Your task to perform on an android device: Clear all items from cart on walmart.com. Image 0: 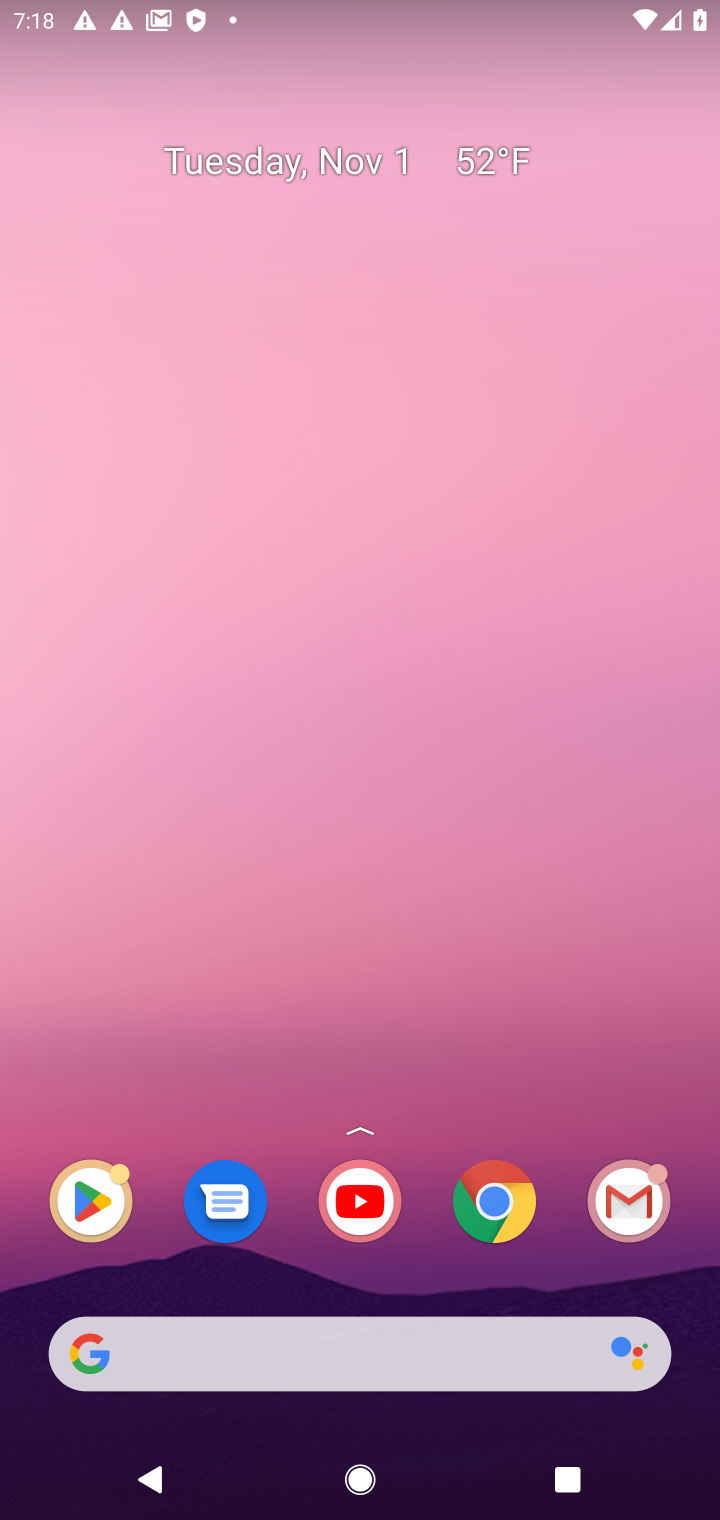
Step 0: click (218, 1334)
Your task to perform on an android device: Clear all items from cart on walmart.com. Image 1: 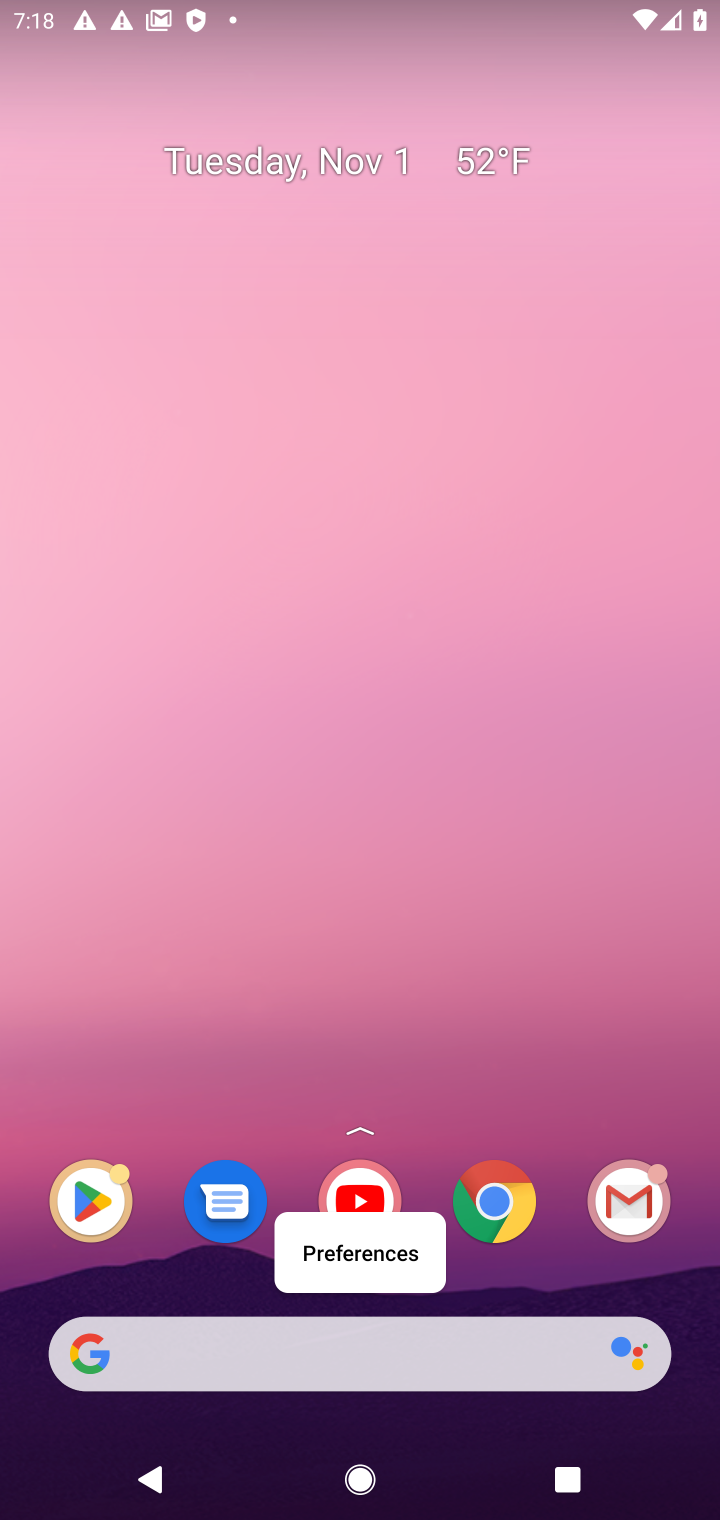
Step 1: click (503, 1204)
Your task to perform on an android device: Clear all items from cart on walmart.com. Image 2: 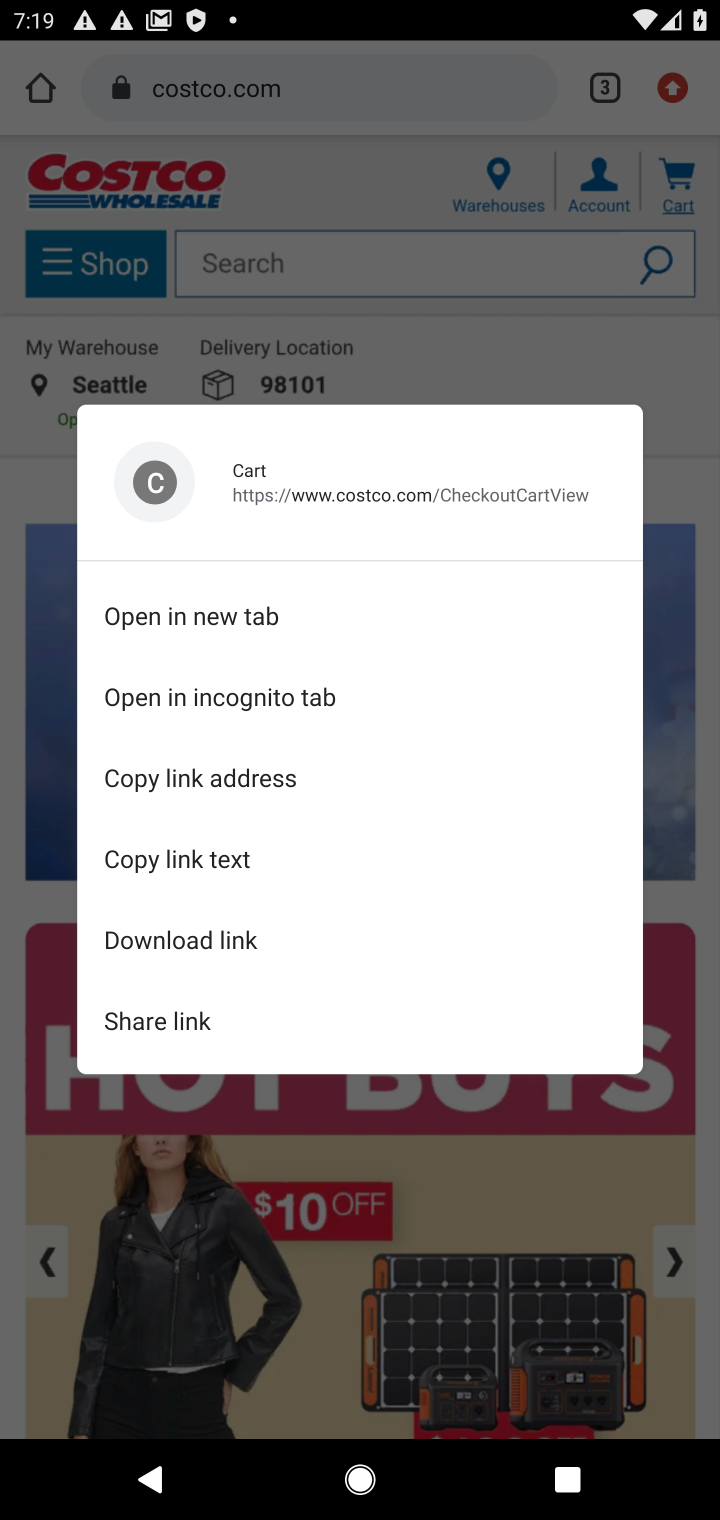
Step 2: click (370, 339)
Your task to perform on an android device: Clear all items from cart on walmart.com. Image 3: 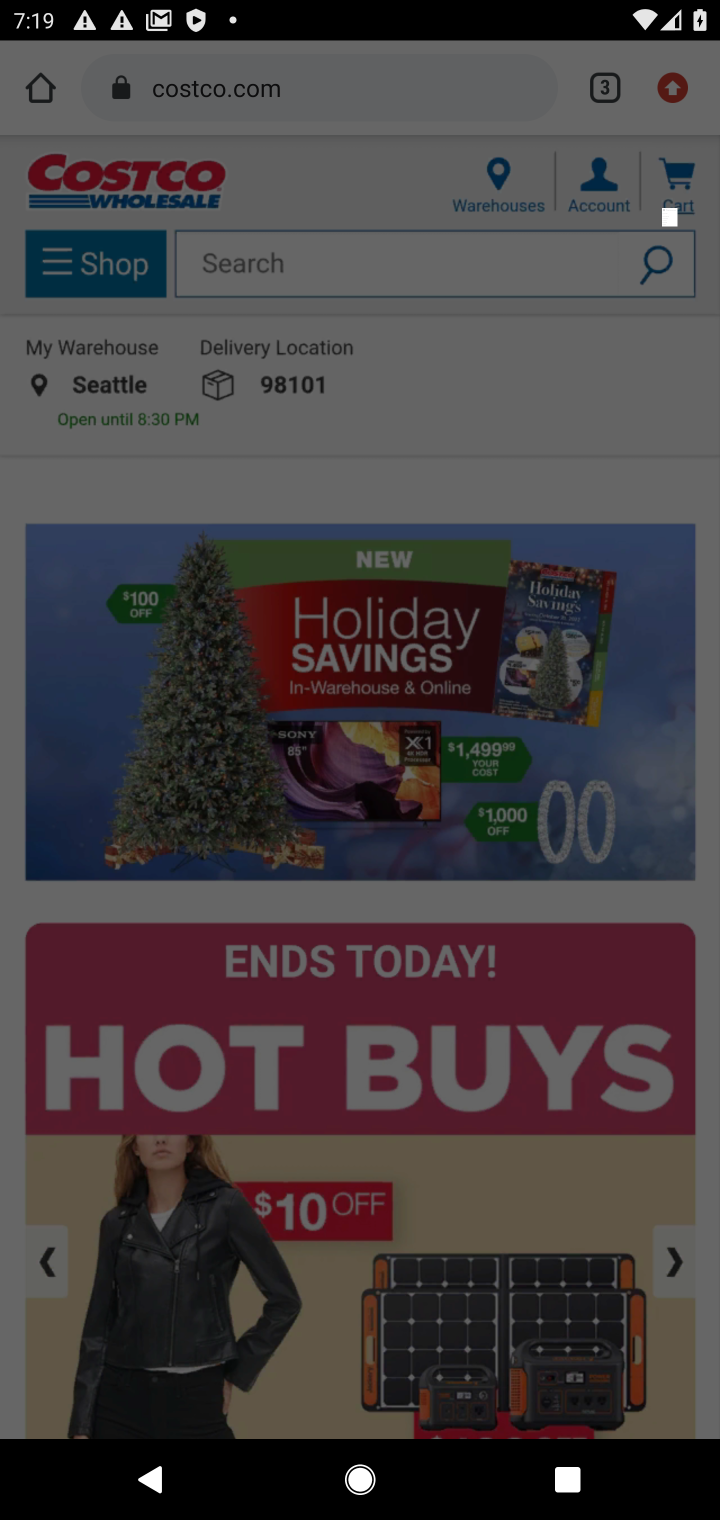
Step 3: click (303, 107)
Your task to perform on an android device: Clear all items from cart on walmart.com. Image 4: 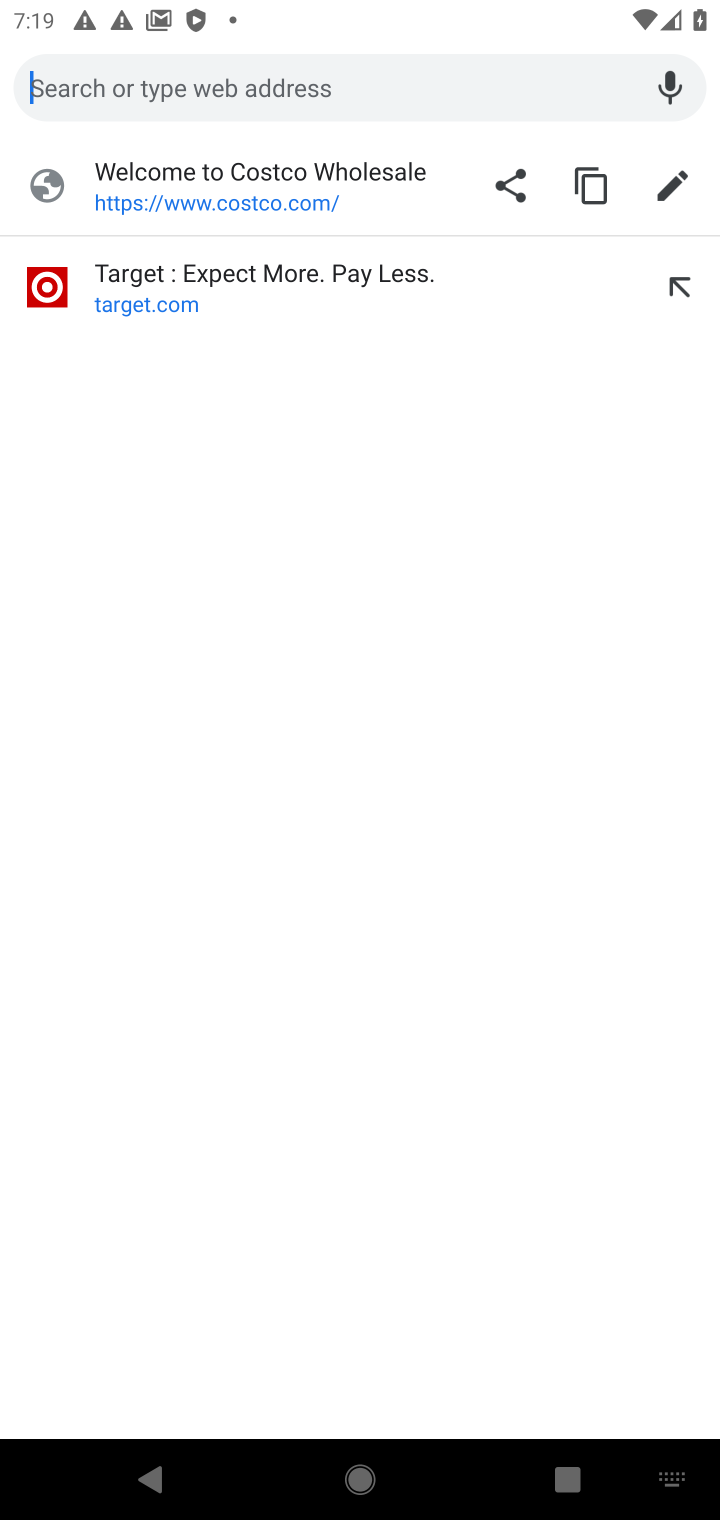
Step 4: click (206, 87)
Your task to perform on an android device: Clear all items from cart on walmart.com. Image 5: 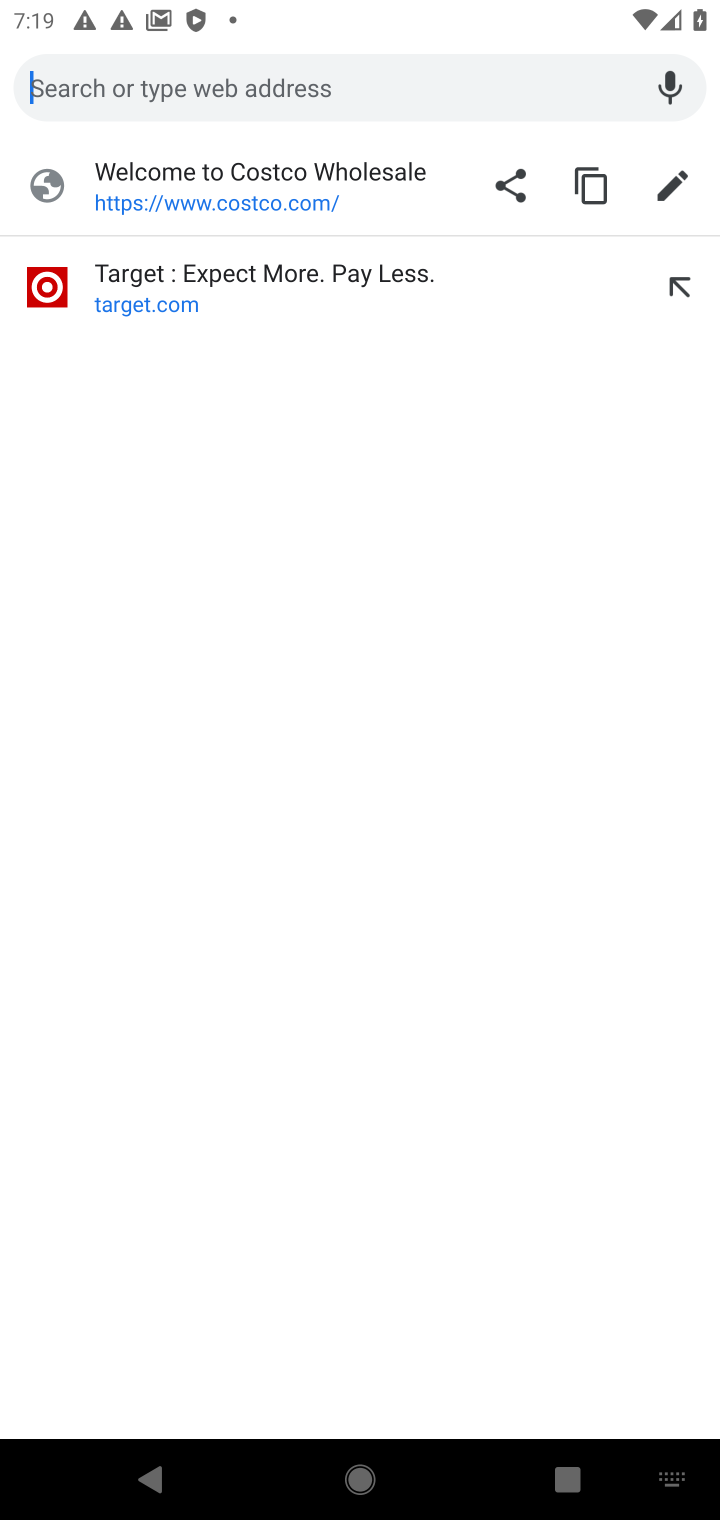
Step 5: type "walmart.com"
Your task to perform on an android device: Clear all items from cart on walmart.com. Image 6: 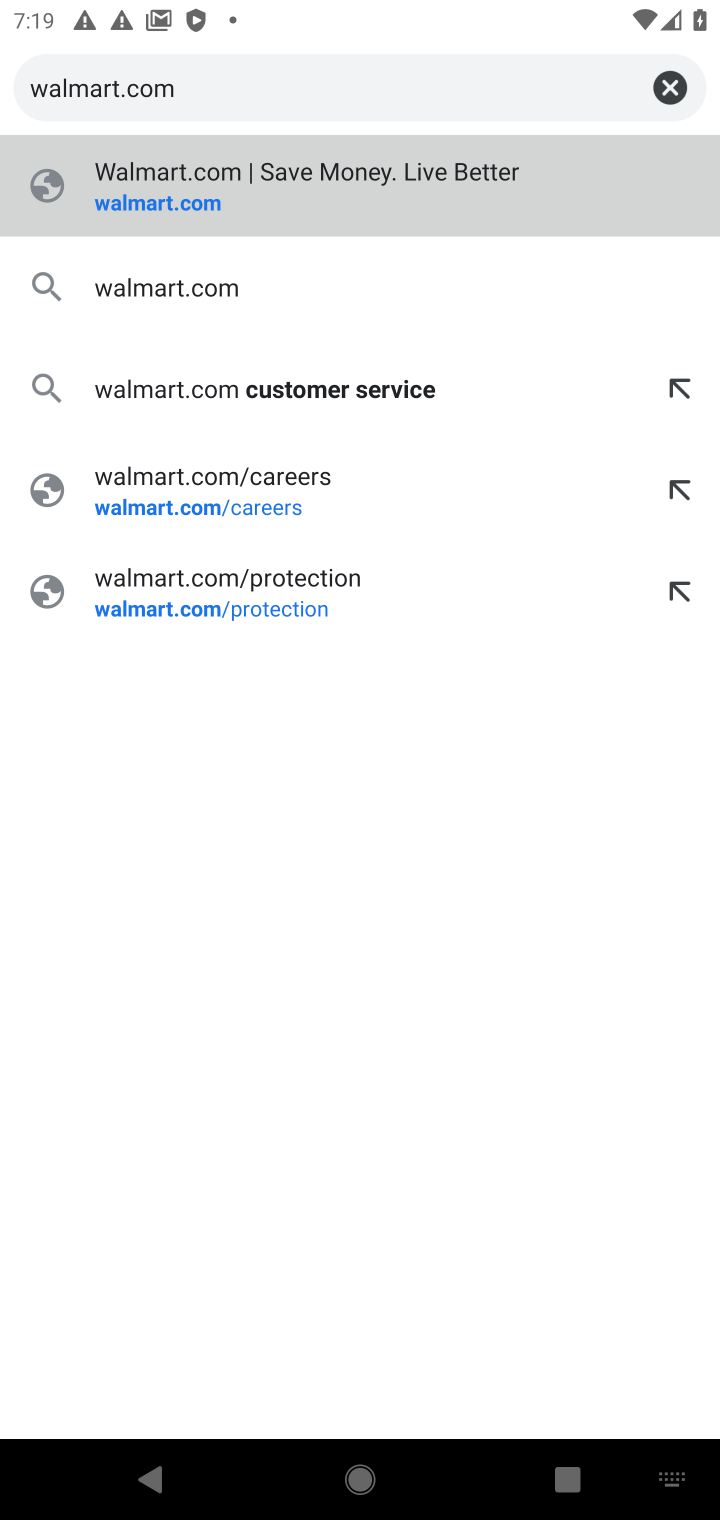
Step 6: type ""
Your task to perform on an android device: Clear all items from cart on walmart.com. Image 7: 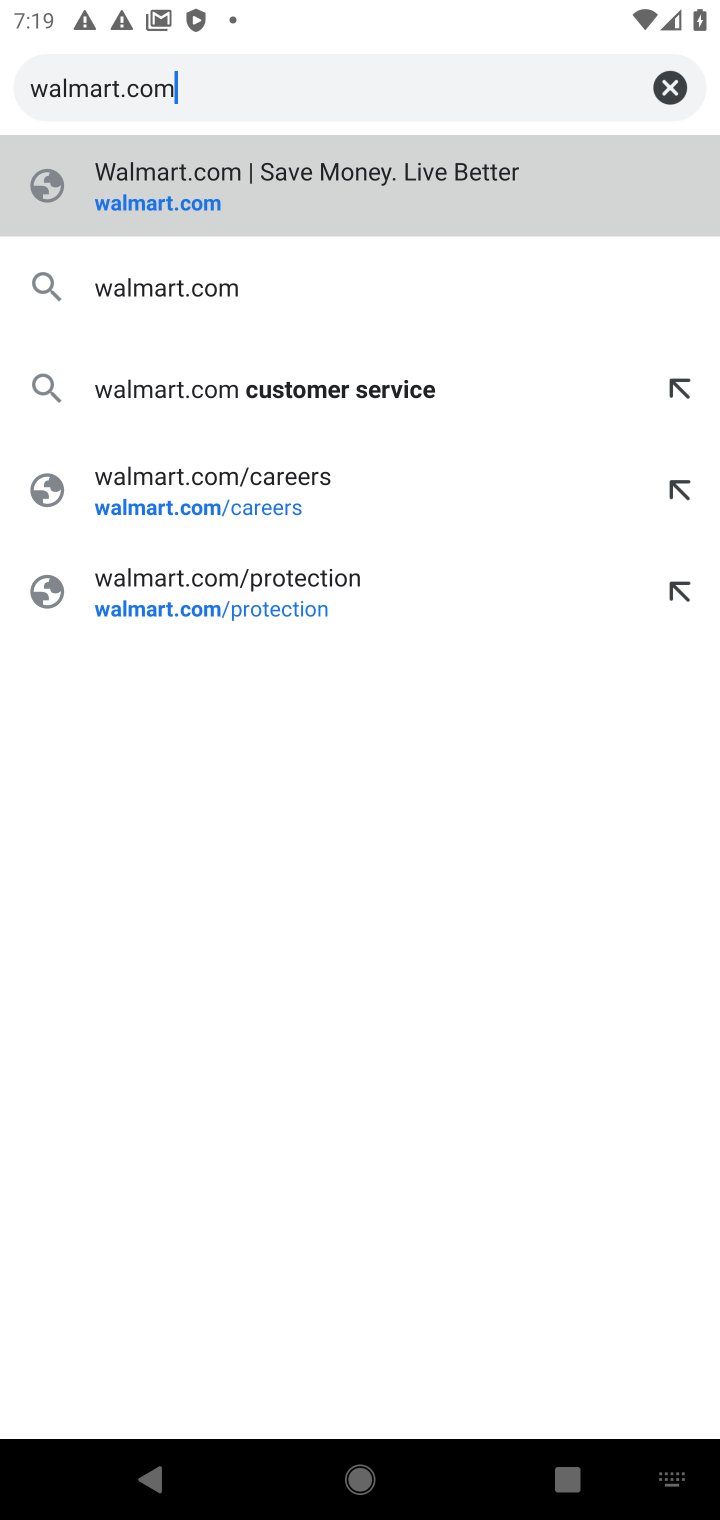
Step 7: press enter
Your task to perform on an android device: Clear all items from cart on walmart.com. Image 8: 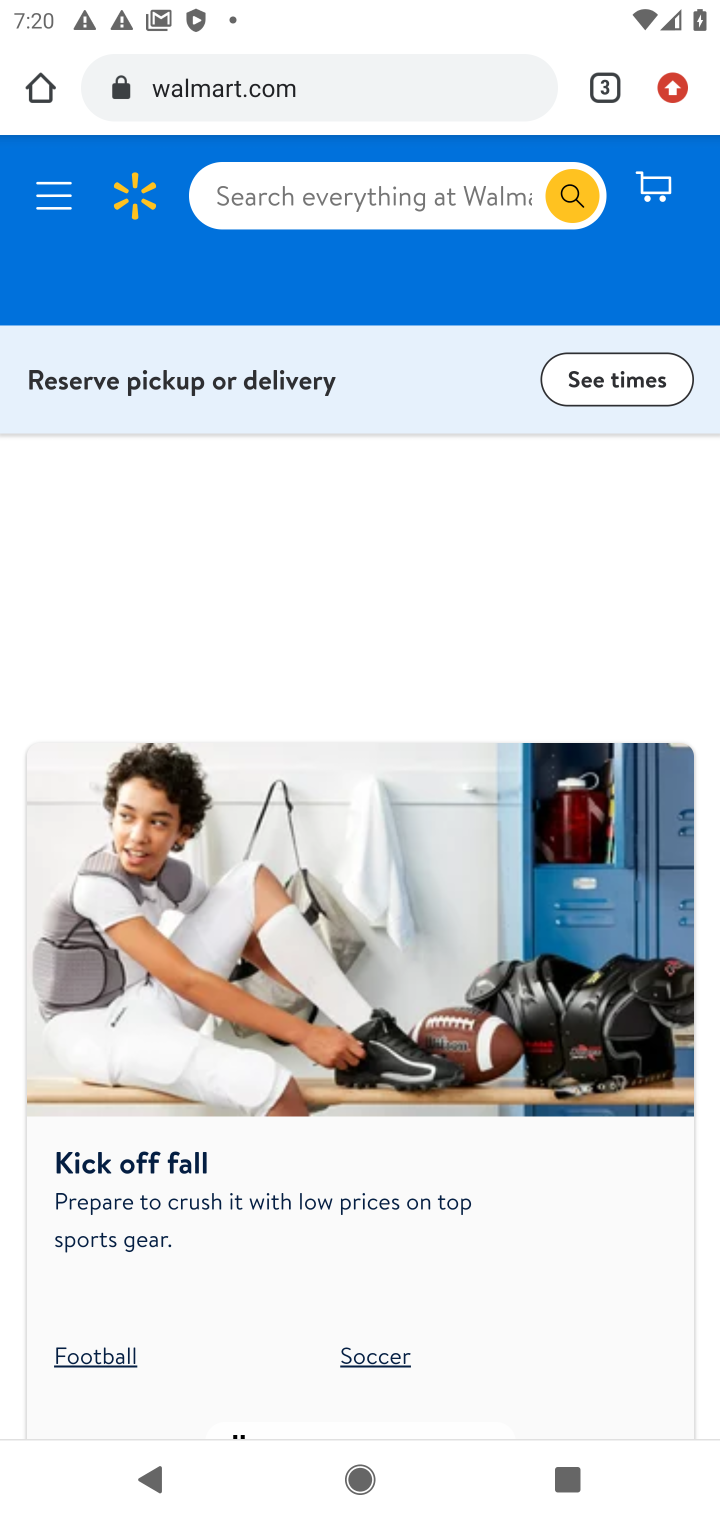
Step 8: click (646, 187)
Your task to perform on an android device: Clear all items from cart on walmart.com. Image 9: 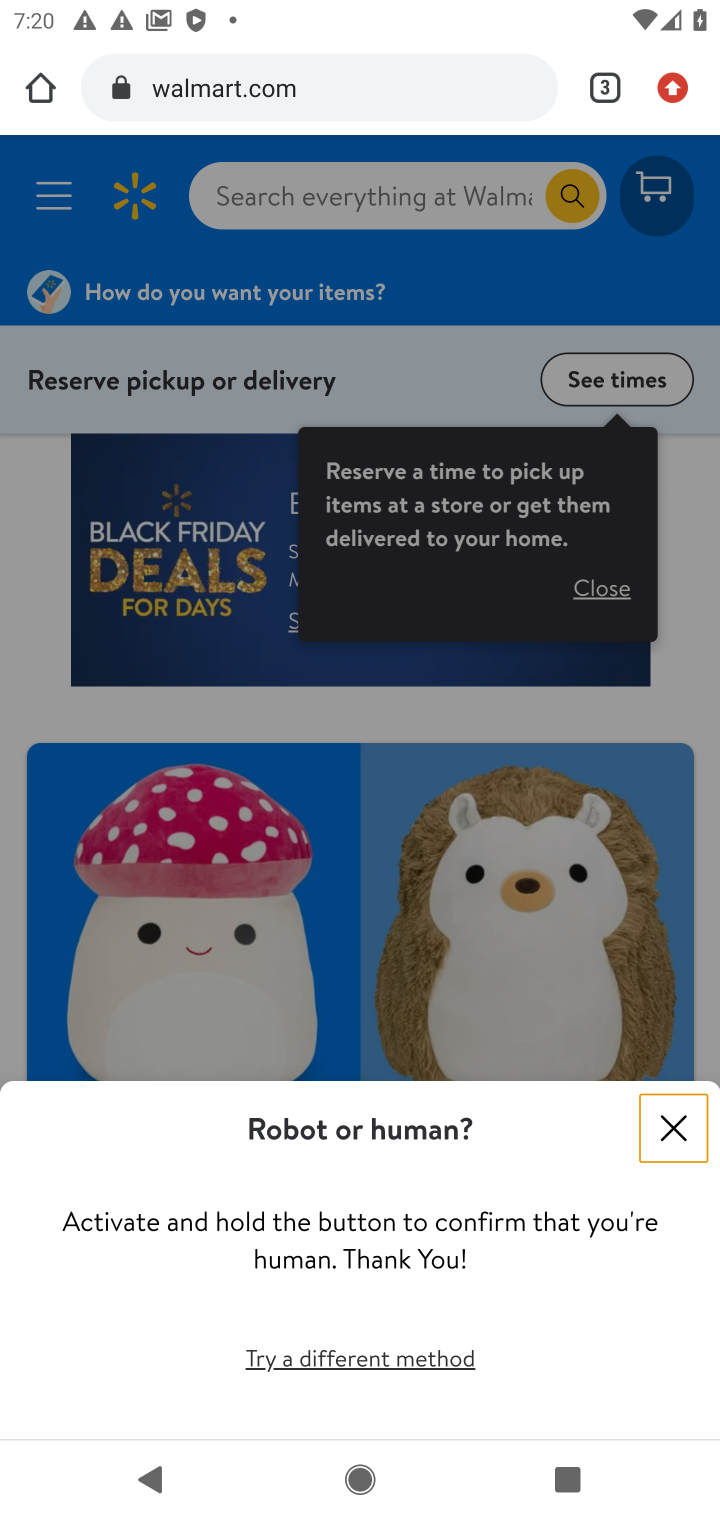
Step 9: click (677, 1140)
Your task to perform on an android device: Clear all items from cart on walmart.com. Image 10: 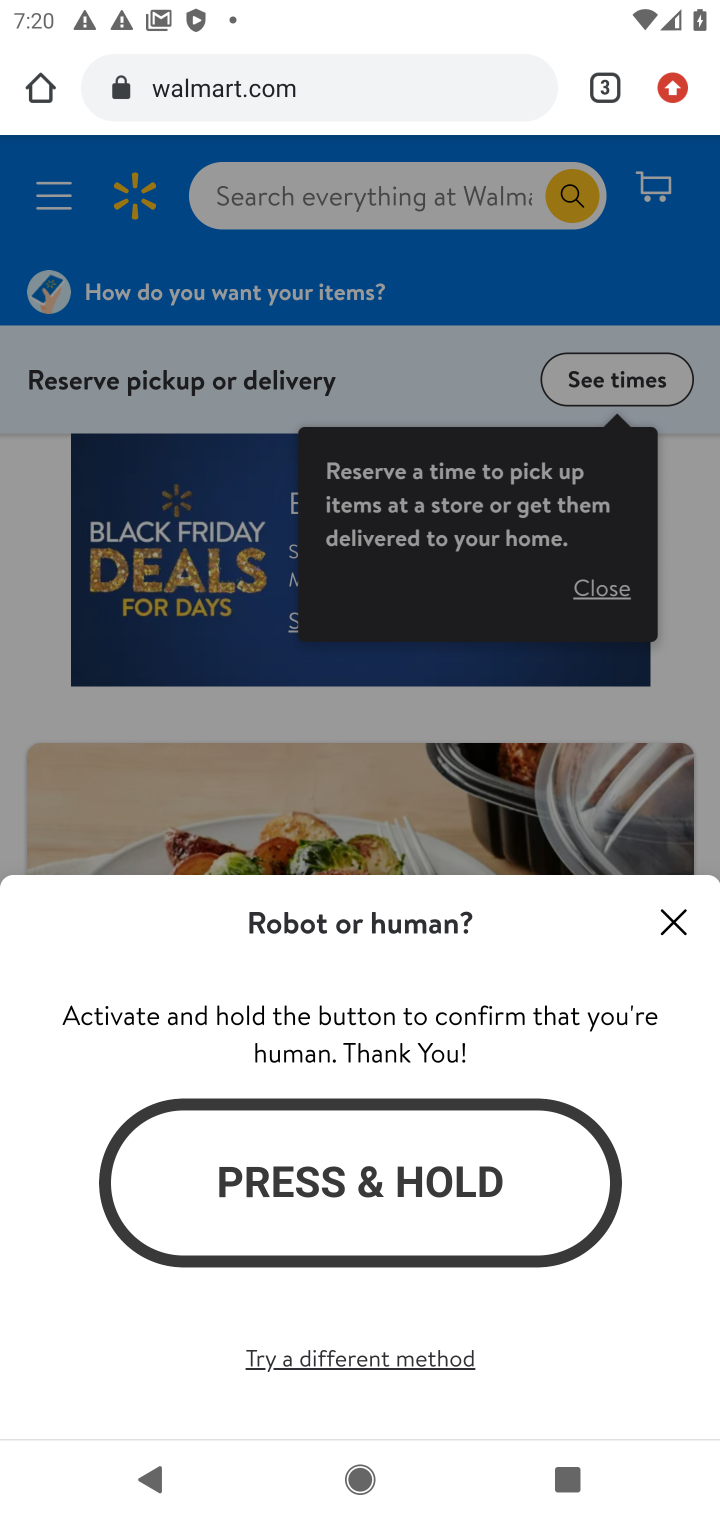
Step 10: click (665, 911)
Your task to perform on an android device: Clear all items from cart on walmart.com. Image 11: 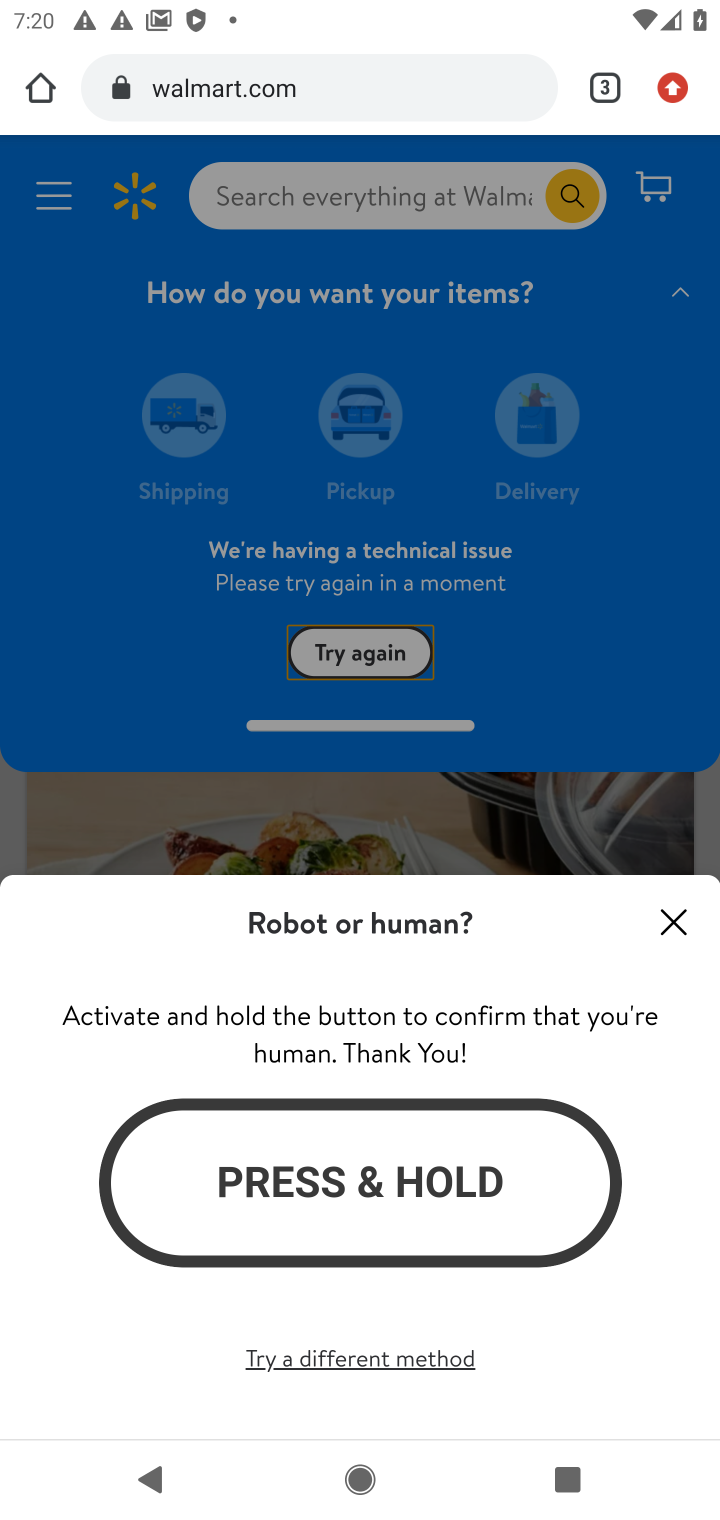
Step 11: click (327, 1162)
Your task to perform on an android device: Clear all items from cart on walmart.com. Image 12: 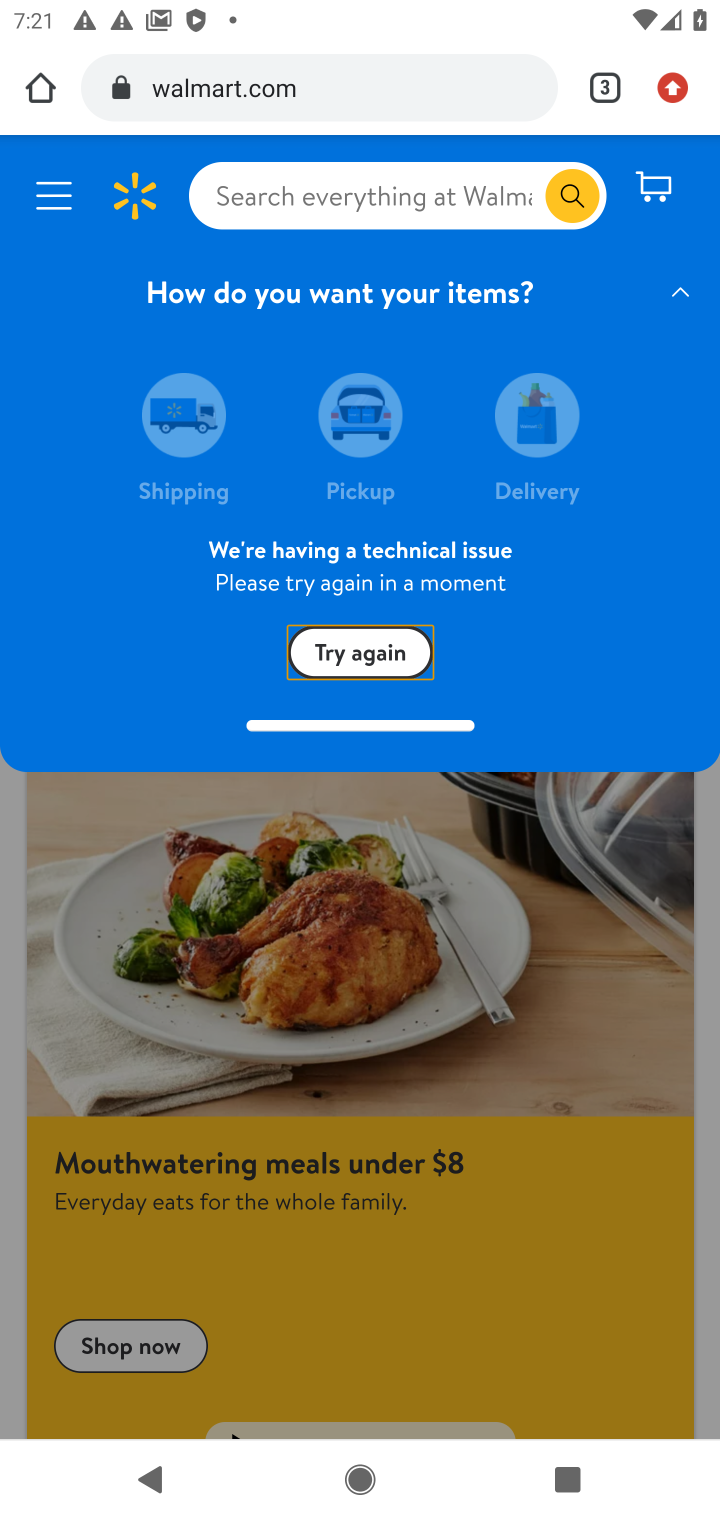
Step 12: click (647, 189)
Your task to perform on an android device: Clear all items from cart on walmart.com. Image 13: 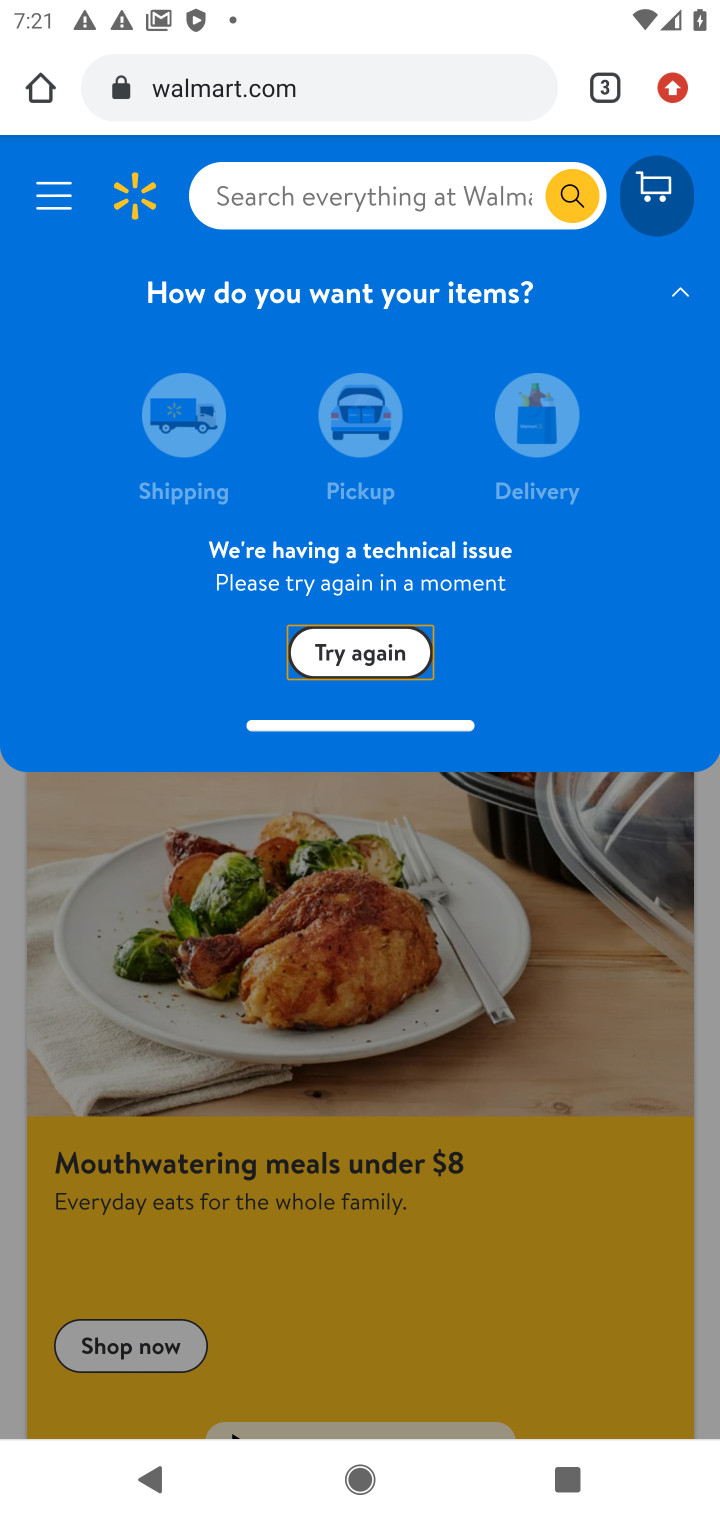
Step 13: click (645, 191)
Your task to perform on an android device: Clear all items from cart on walmart.com. Image 14: 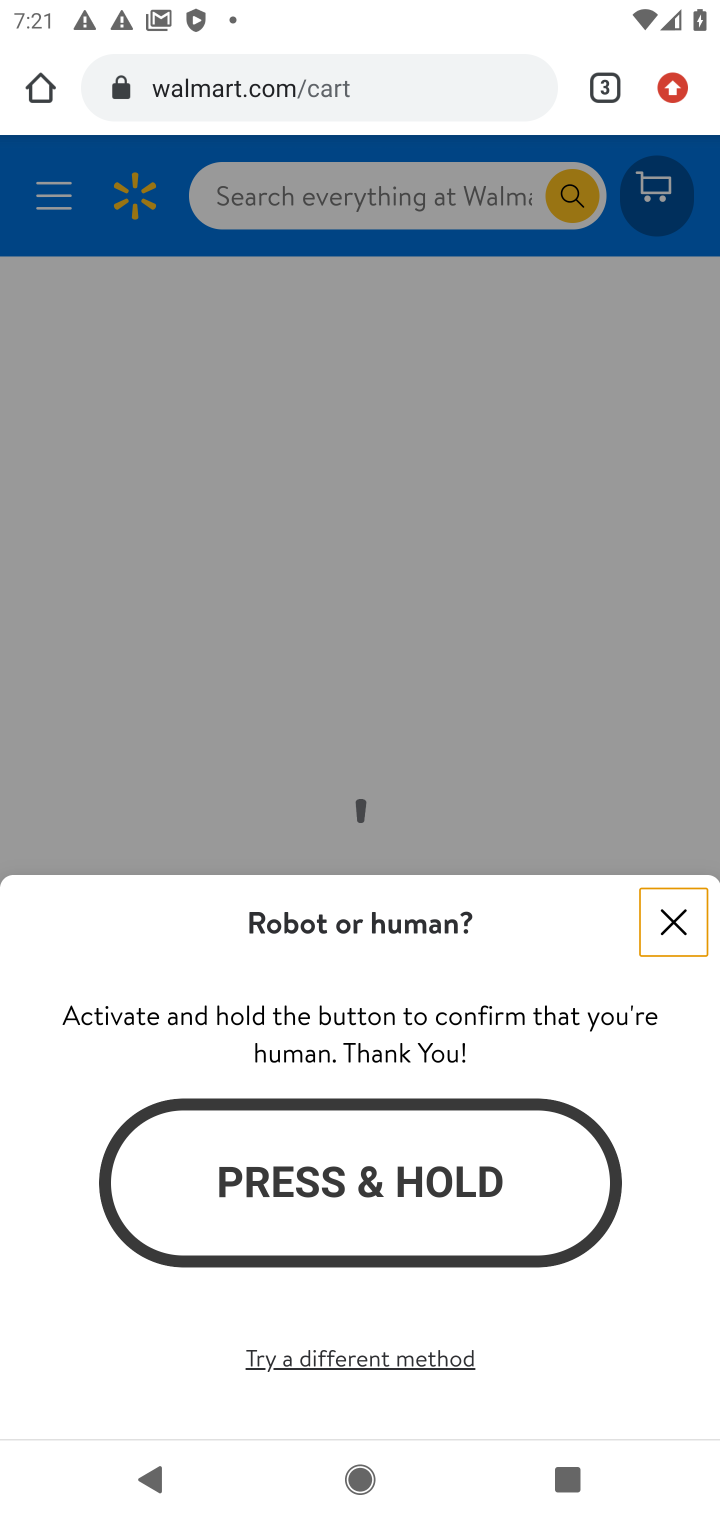
Step 14: click (372, 1205)
Your task to perform on an android device: Clear all items from cart on walmart.com. Image 15: 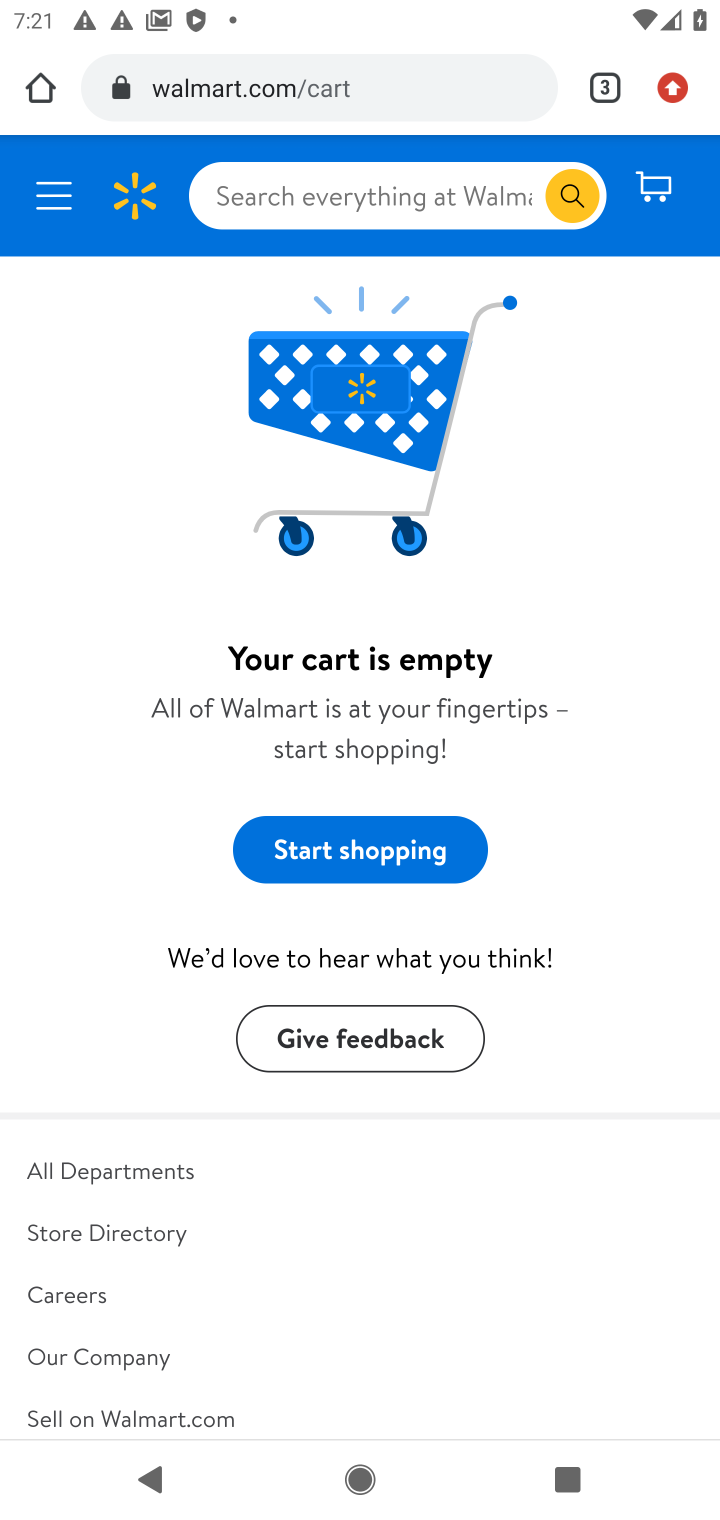
Step 15: task complete